Your task to perform on an android device: Open ESPN.com Image 0: 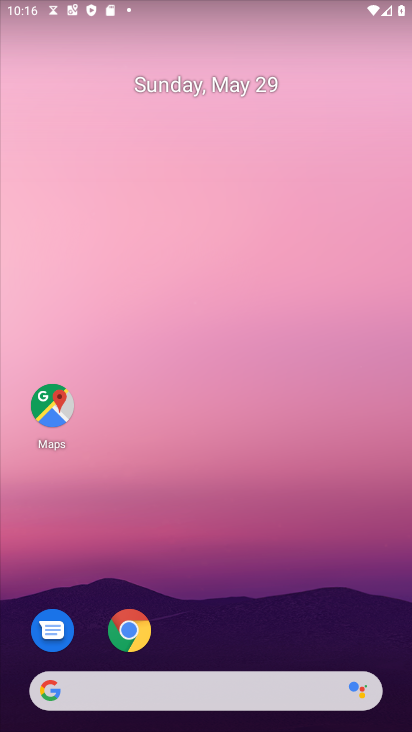
Step 0: click (138, 629)
Your task to perform on an android device: Open ESPN.com Image 1: 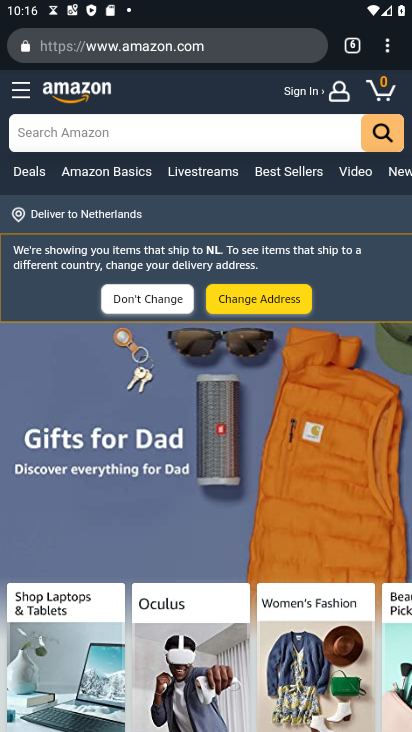
Step 1: click (356, 49)
Your task to perform on an android device: Open ESPN.com Image 2: 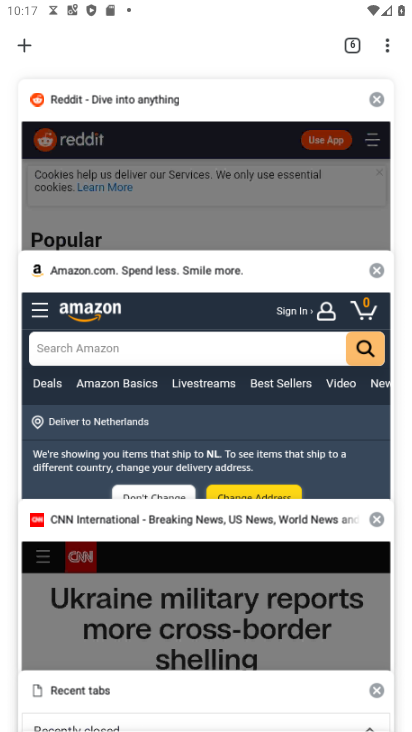
Step 2: click (29, 44)
Your task to perform on an android device: Open ESPN.com Image 3: 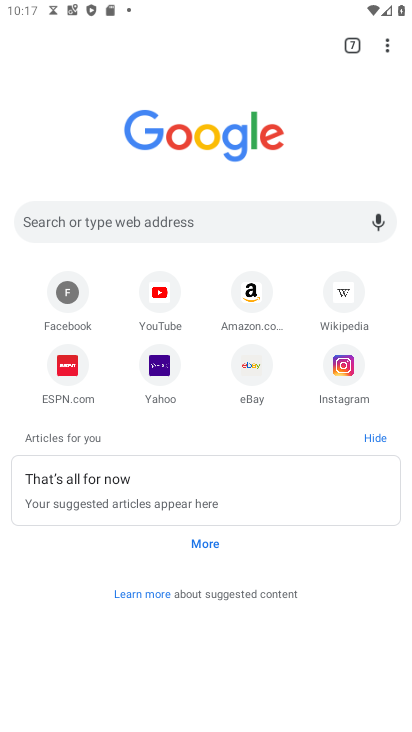
Step 3: click (75, 366)
Your task to perform on an android device: Open ESPN.com Image 4: 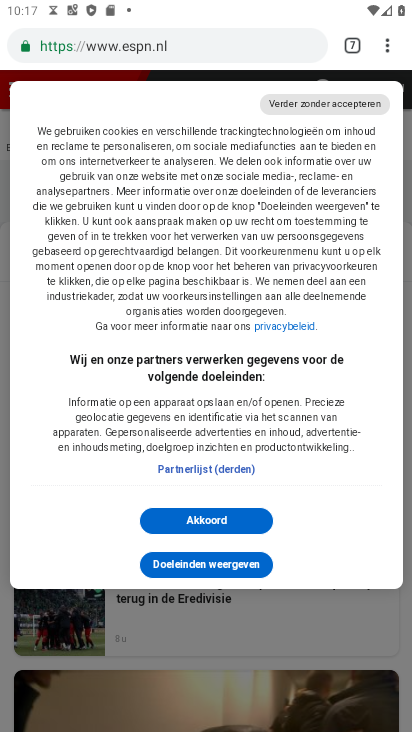
Step 4: task complete